Your task to perform on an android device: remove spam from my inbox in the gmail app Image 0: 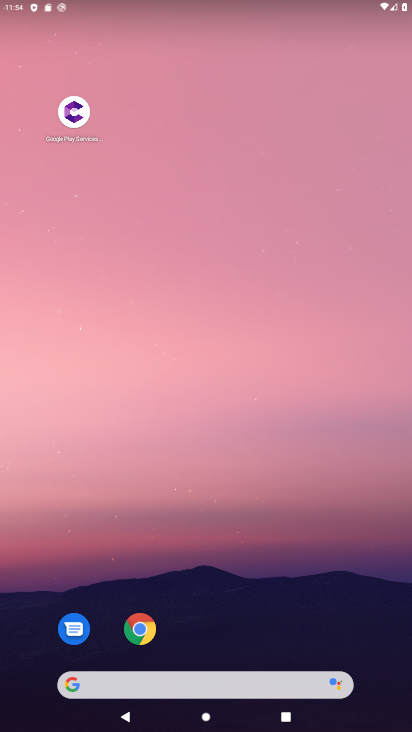
Step 0: drag from (225, 627) to (242, 110)
Your task to perform on an android device: remove spam from my inbox in the gmail app Image 1: 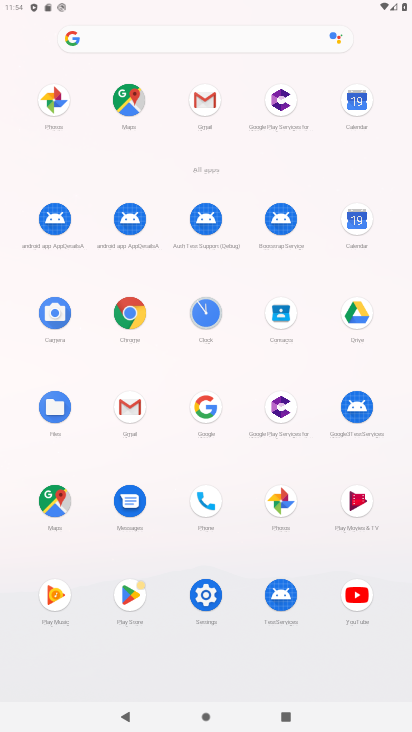
Step 1: click (123, 403)
Your task to perform on an android device: remove spam from my inbox in the gmail app Image 2: 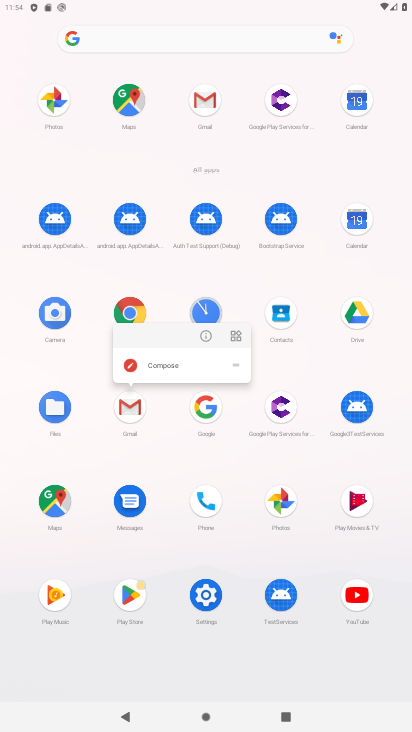
Step 2: click (199, 336)
Your task to perform on an android device: remove spam from my inbox in the gmail app Image 3: 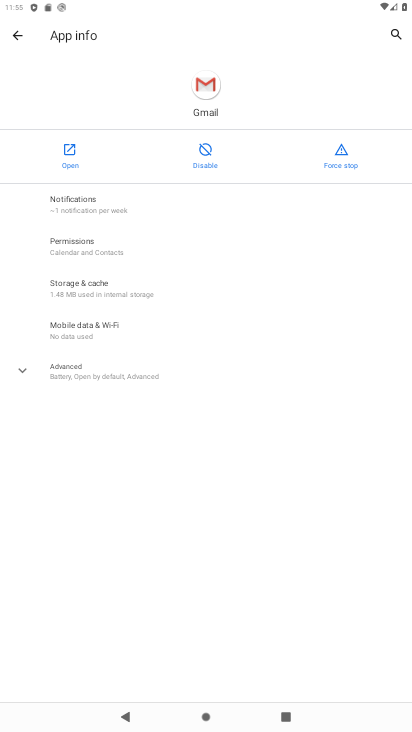
Step 3: click (62, 151)
Your task to perform on an android device: remove spam from my inbox in the gmail app Image 4: 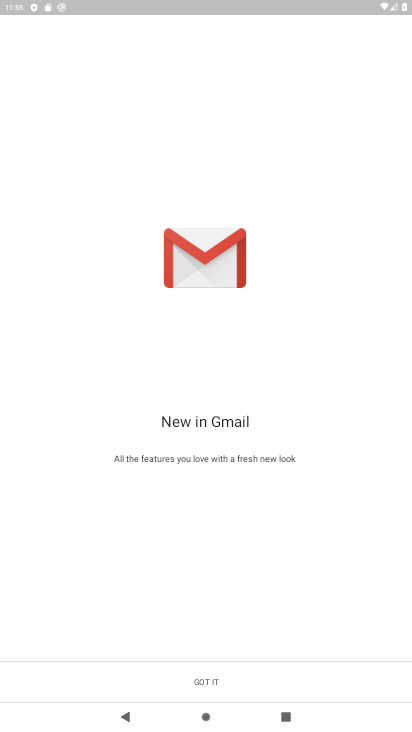
Step 4: click (185, 685)
Your task to perform on an android device: remove spam from my inbox in the gmail app Image 5: 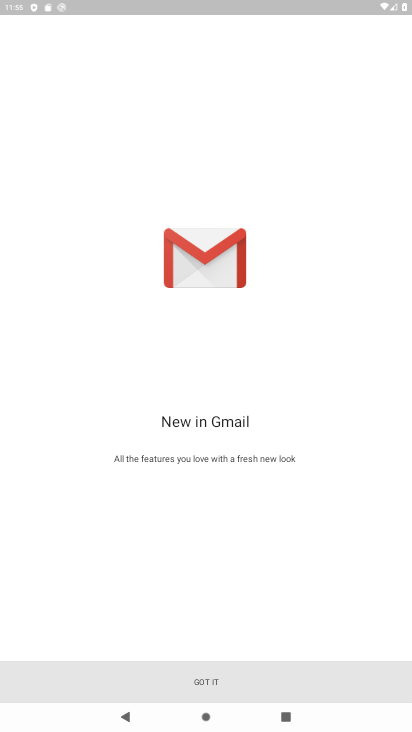
Step 5: click (185, 685)
Your task to perform on an android device: remove spam from my inbox in the gmail app Image 6: 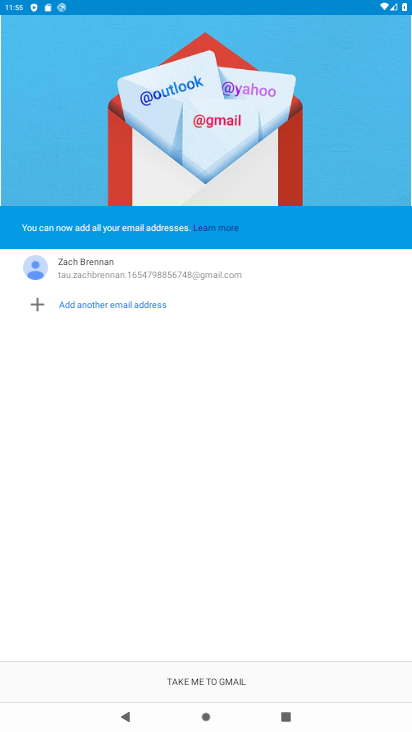
Step 6: click (203, 691)
Your task to perform on an android device: remove spam from my inbox in the gmail app Image 7: 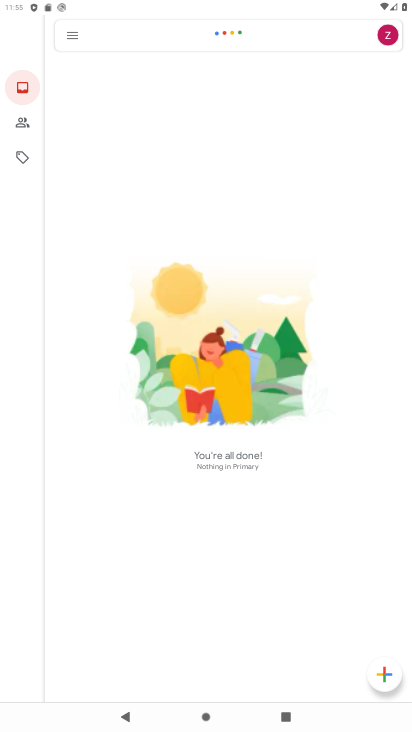
Step 7: drag from (184, 629) to (239, 210)
Your task to perform on an android device: remove spam from my inbox in the gmail app Image 8: 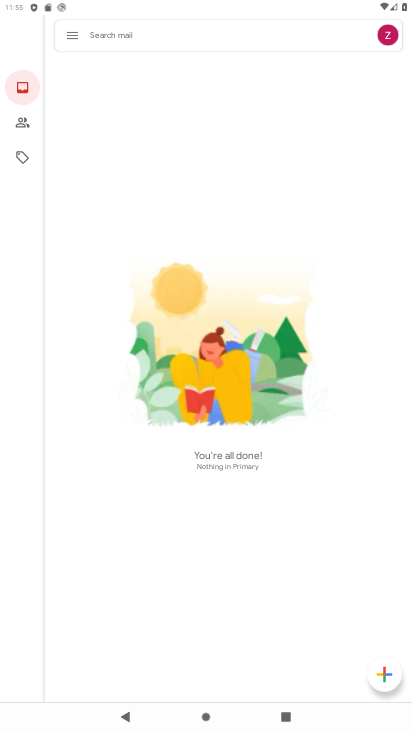
Step 8: click (71, 36)
Your task to perform on an android device: remove spam from my inbox in the gmail app Image 9: 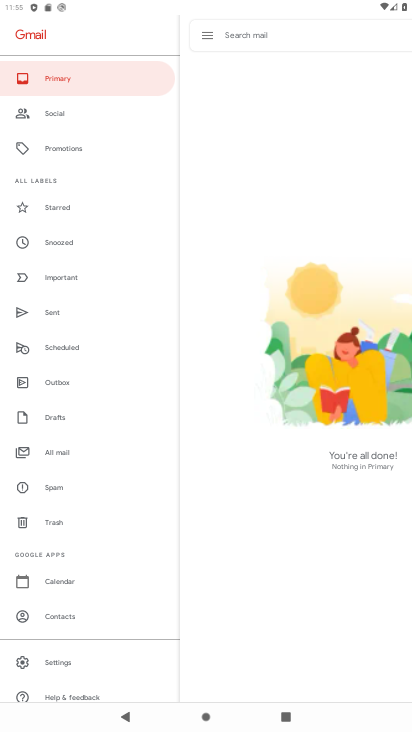
Step 9: click (58, 489)
Your task to perform on an android device: remove spam from my inbox in the gmail app Image 10: 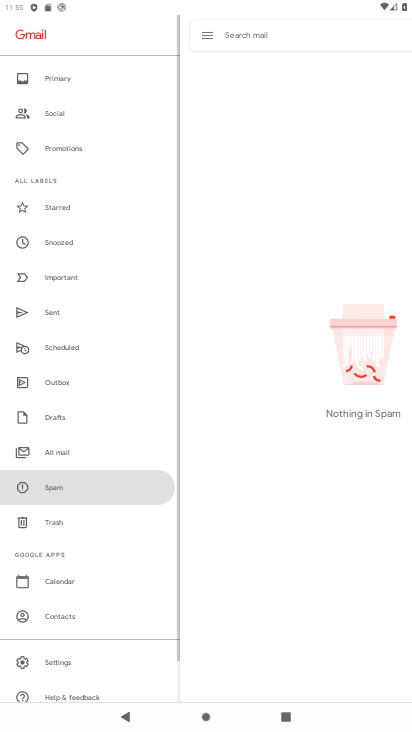
Step 10: task complete